Your task to perform on an android device: Open the Play Movies app and select the watchlist tab. Image 0: 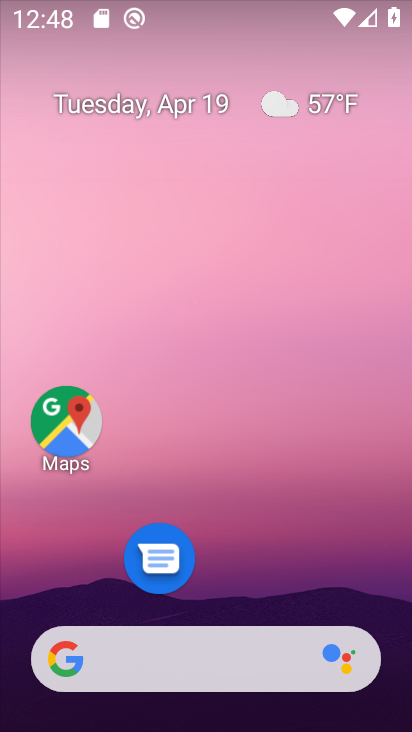
Step 0: drag from (237, 410) to (162, 93)
Your task to perform on an android device: Open the Play Movies app and select the watchlist tab. Image 1: 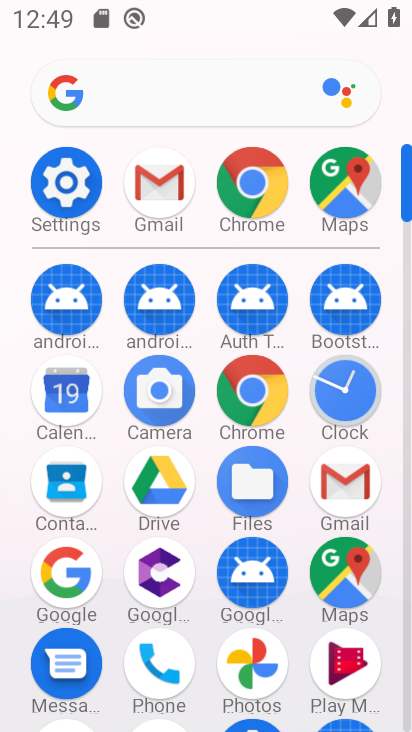
Step 1: click (337, 661)
Your task to perform on an android device: Open the Play Movies app and select the watchlist tab. Image 2: 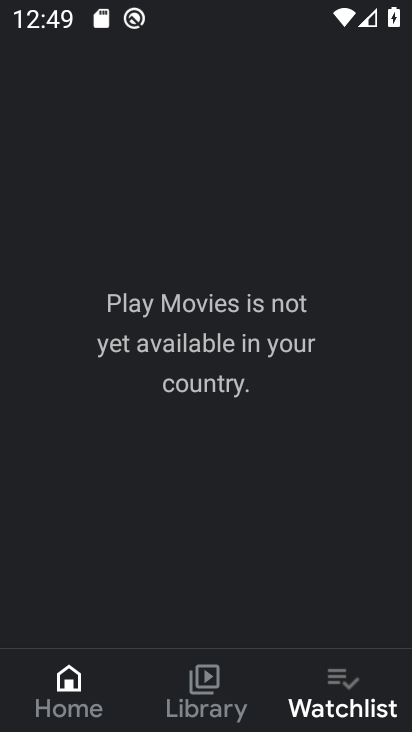
Step 2: click (346, 699)
Your task to perform on an android device: Open the Play Movies app and select the watchlist tab. Image 3: 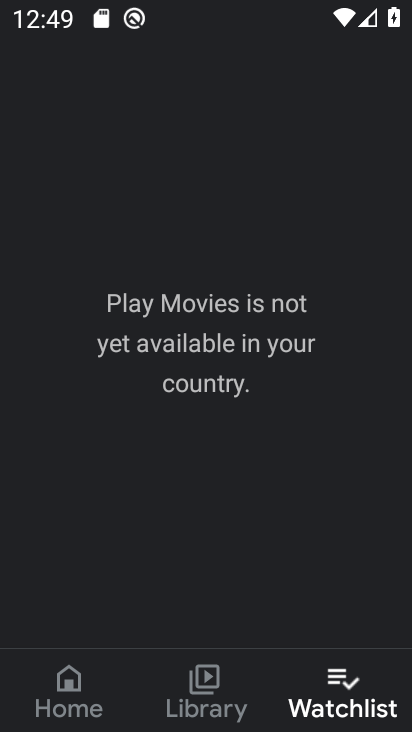
Step 3: task complete